Your task to perform on an android device: Set the phone to "Do not disturb". Image 0: 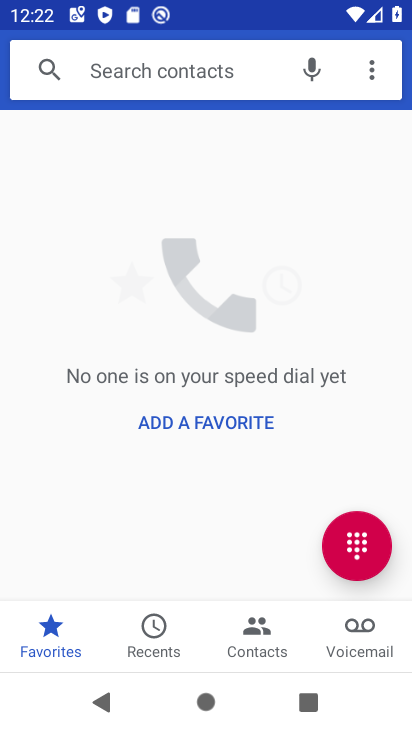
Step 0: press home button
Your task to perform on an android device: Set the phone to "Do not disturb". Image 1: 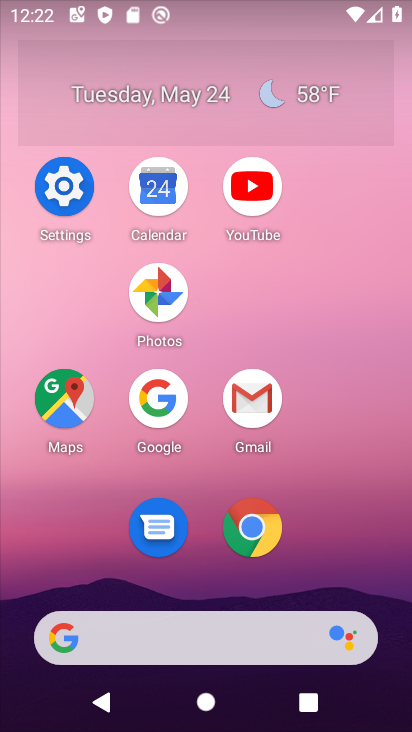
Step 1: click (87, 174)
Your task to perform on an android device: Set the phone to "Do not disturb". Image 2: 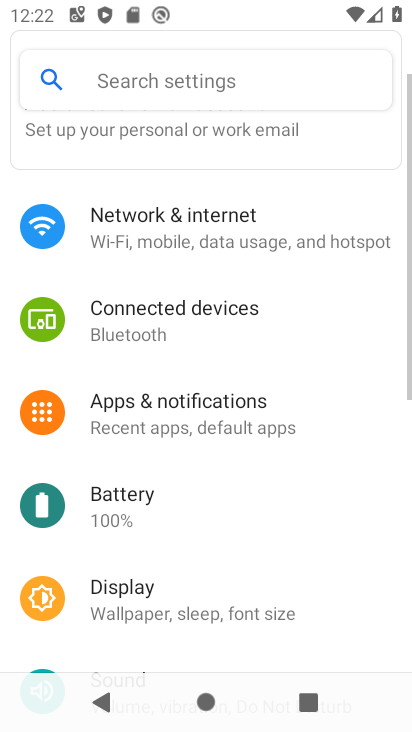
Step 2: drag from (320, 478) to (312, 217)
Your task to perform on an android device: Set the phone to "Do not disturb". Image 3: 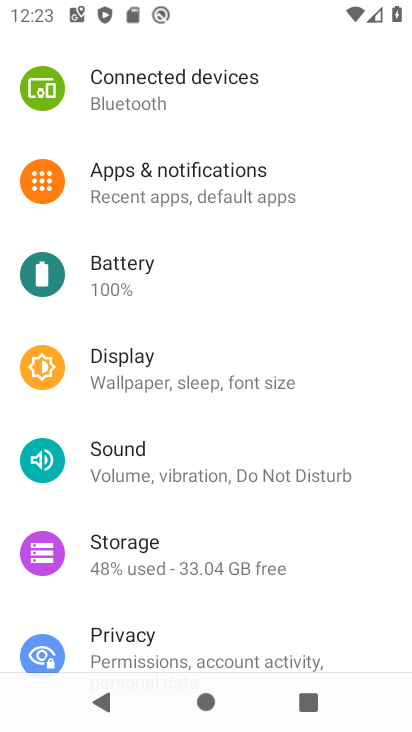
Step 3: click (335, 457)
Your task to perform on an android device: Set the phone to "Do not disturb". Image 4: 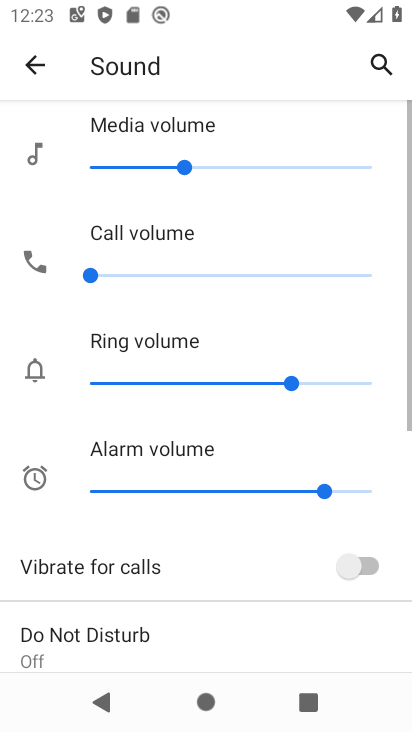
Step 4: click (188, 617)
Your task to perform on an android device: Set the phone to "Do not disturb". Image 5: 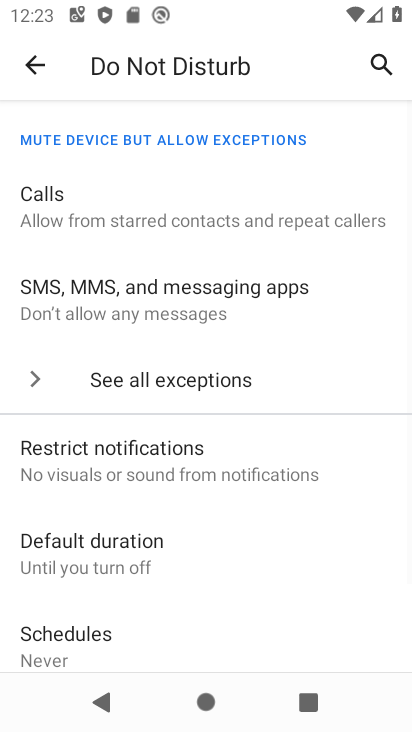
Step 5: drag from (188, 516) to (227, 192)
Your task to perform on an android device: Set the phone to "Do not disturb". Image 6: 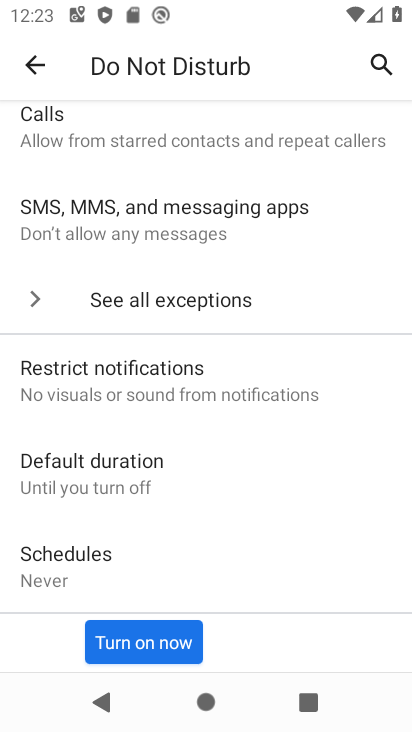
Step 6: click (185, 634)
Your task to perform on an android device: Set the phone to "Do not disturb". Image 7: 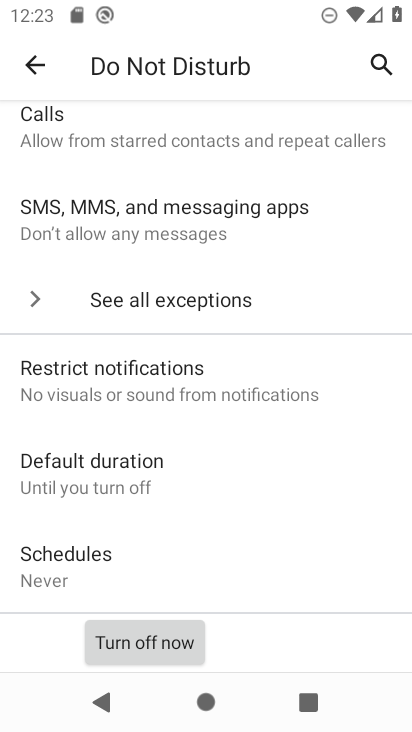
Step 7: task complete